Your task to perform on an android device: turn on data saver in the chrome app Image 0: 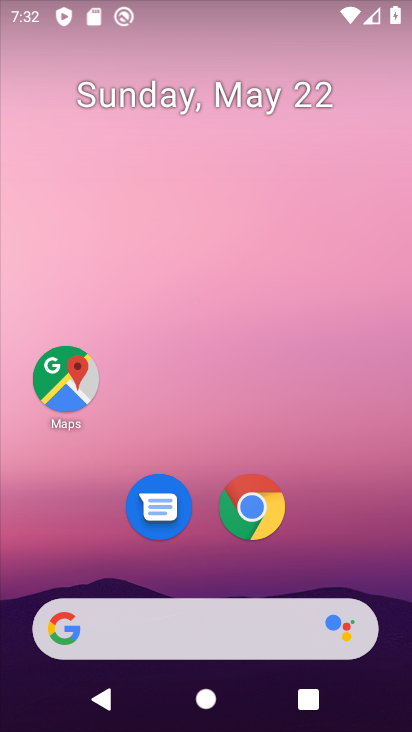
Step 0: click (250, 514)
Your task to perform on an android device: turn on data saver in the chrome app Image 1: 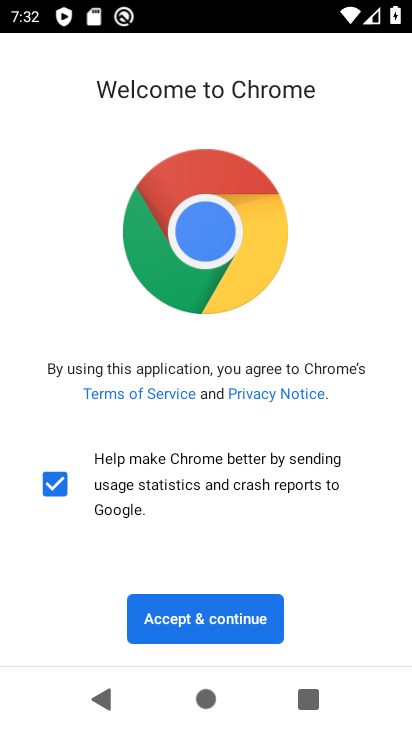
Step 1: click (216, 610)
Your task to perform on an android device: turn on data saver in the chrome app Image 2: 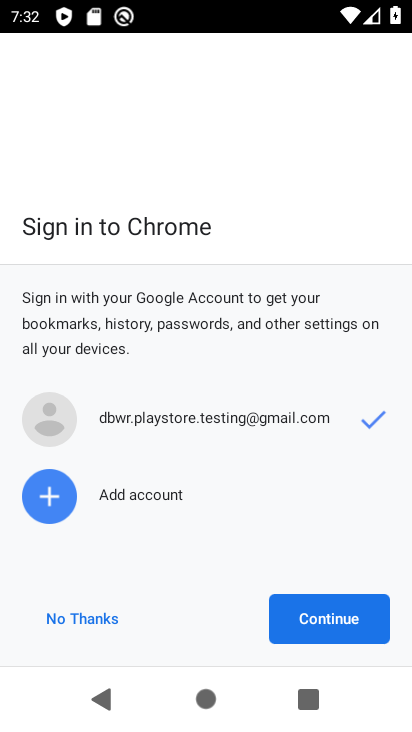
Step 2: click (333, 624)
Your task to perform on an android device: turn on data saver in the chrome app Image 3: 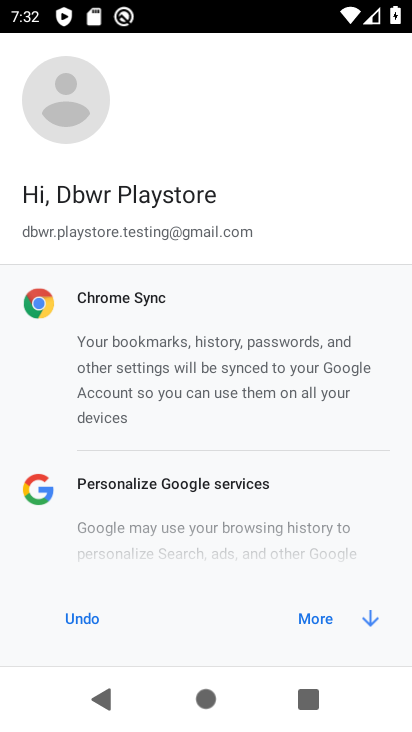
Step 3: click (319, 622)
Your task to perform on an android device: turn on data saver in the chrome app Image 4: 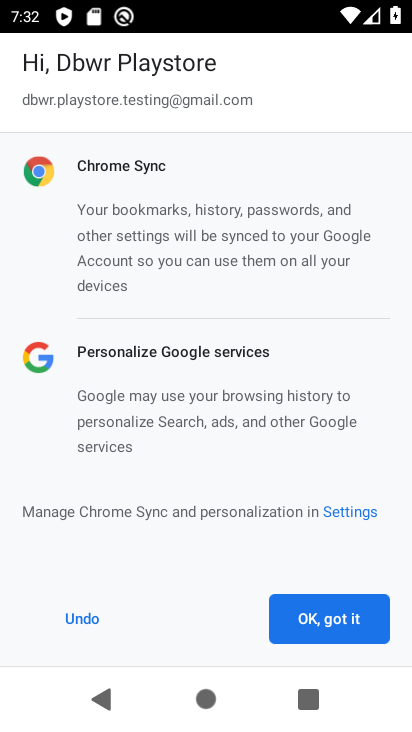
Step 4: click (344, 606)
Your task to perform on an android device: turn on data saver in the chrome app Image 5: 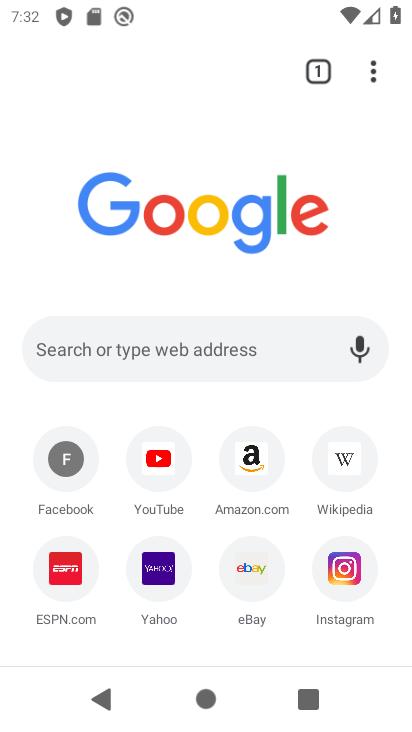
Step 5: click (374, 66)
Your task to perform on an android device: turn on data saver in the chrome app Image 6: 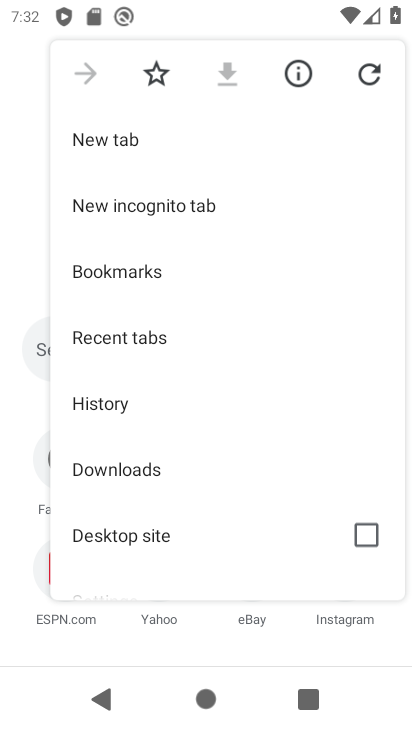
Step 6: drag from (204, 403) to (239, 74)
Your task to perform on an android device: turn on data saver in the chrome app Image 7: 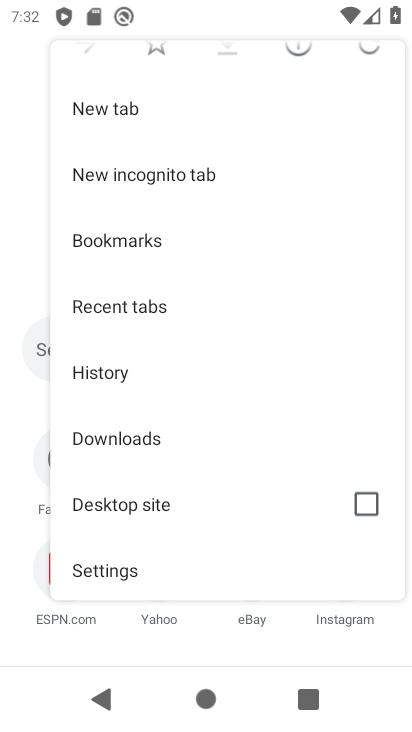
Step 7: click (112, 564)
Your task to perform on an android device: turn on data saver in the chrome app Image 8: 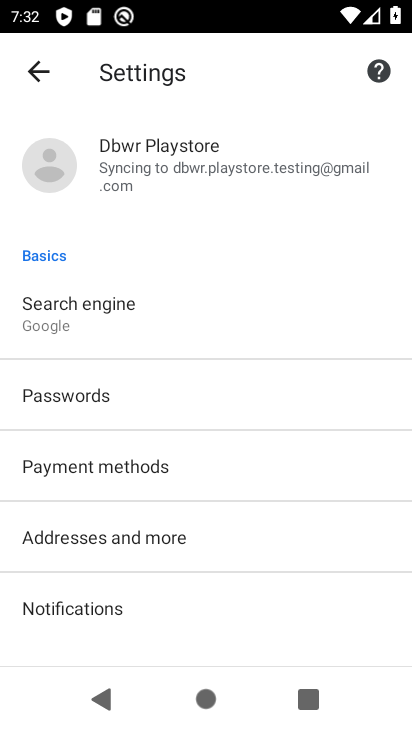
Step 8: drag from (155, 617) to (146, 17)
Your task to perform on an android device: turn on data saver in the chrome app Image 9: 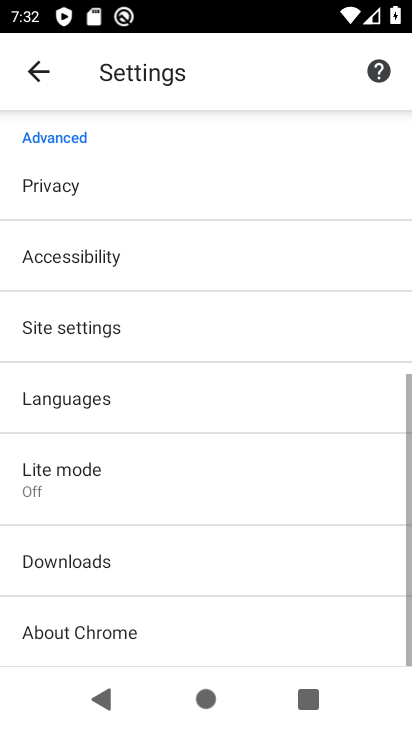
Step 9: click (97, 486)
Your task to perform on an android device: turn on data saver in the chrome app Image 10: 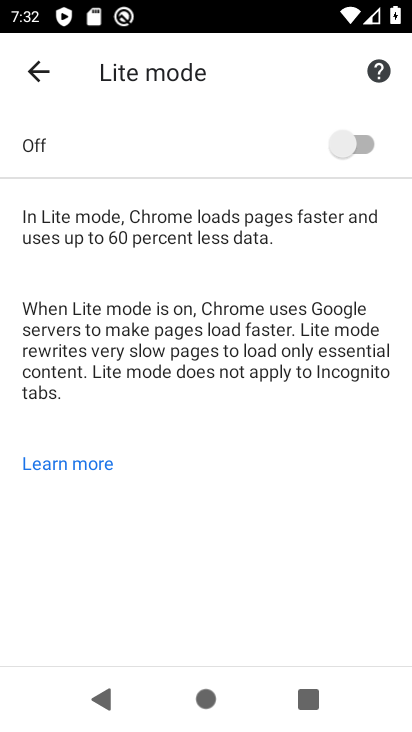
Step 10: click (357, 141)
Your task to perform on an android device: turn on data saver in the chrome app Image 11: 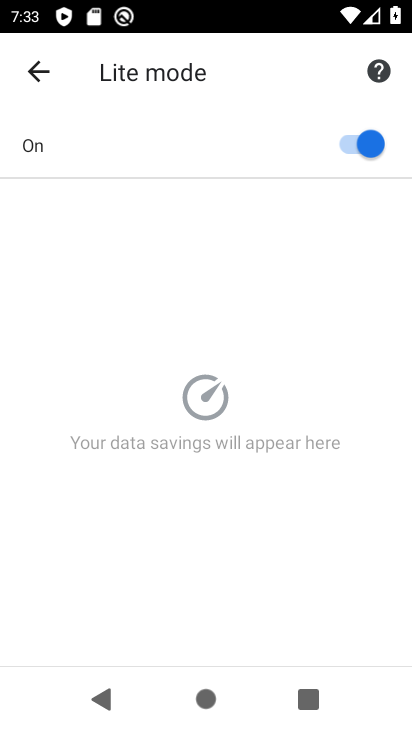
Step 11: task complete